Your task to perform on an android device: Search for vegetarian restaurants on Maps Image 0: 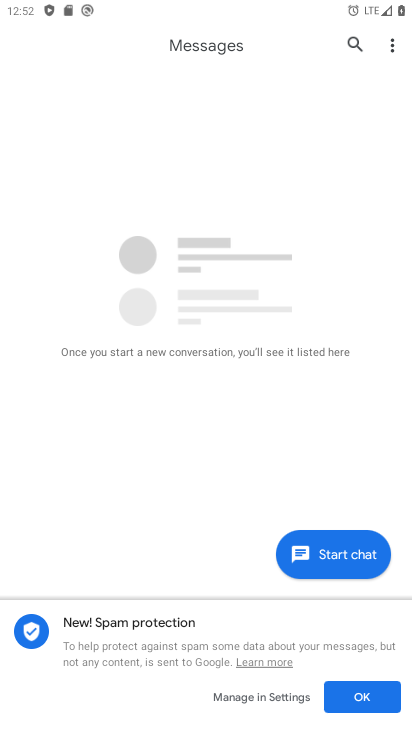
Step 0: press home button
Your task to perform on an android device: Search for vegetarian restaurants on Maps Image 1: 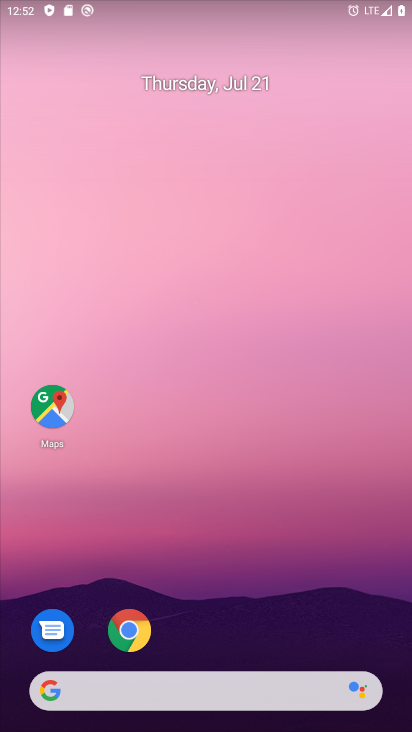
Step 1: click (52, 417)
Your task to perform on an android device: Search for vegetarian restaurants on Maps Image 2: 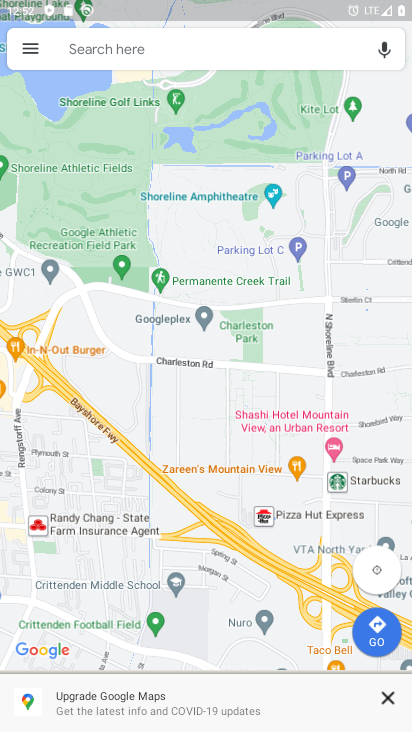
Step 2: click (138, 37)
Your task to perform on an android device: Search for vegetarian restaurants on Maps Image 3: 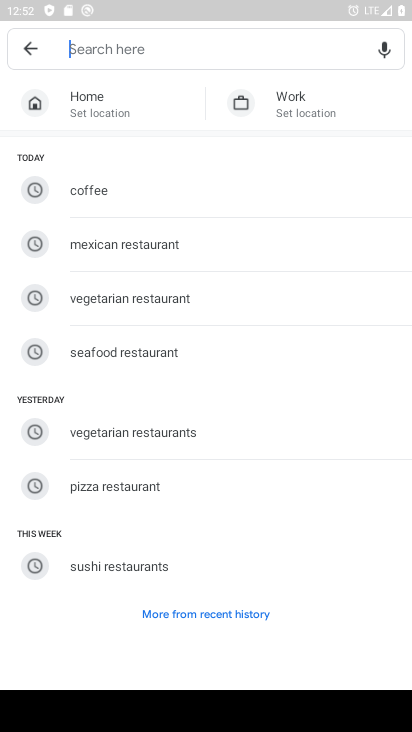
Step 3: click (226, 310)
Your task to perform on an android device: Search for vegetarian restaurants on Maps Image 4: 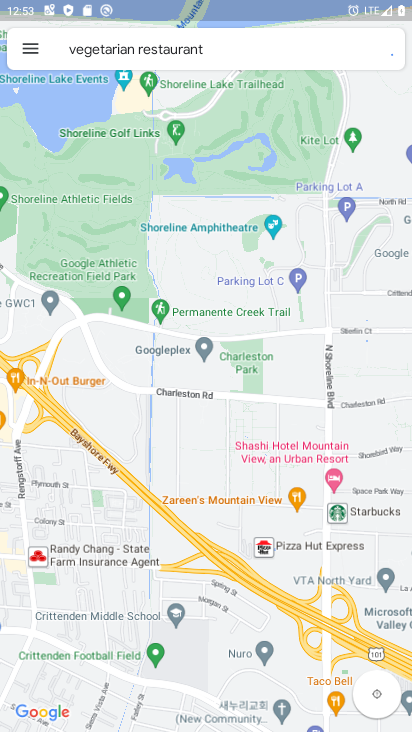
Step 4: task complete